Your task to perform on an android device: Go to ESPN.com Image 0: 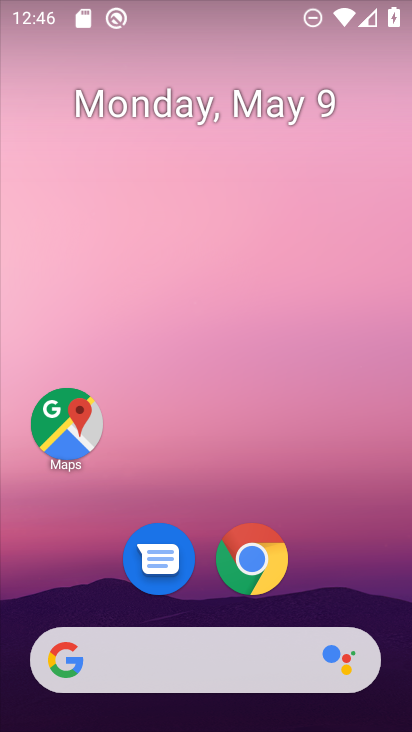
Step 0: drag from (369, 602) to (363, 537)
Your task to perform on an android device: Go to ESPN.com Image 1: 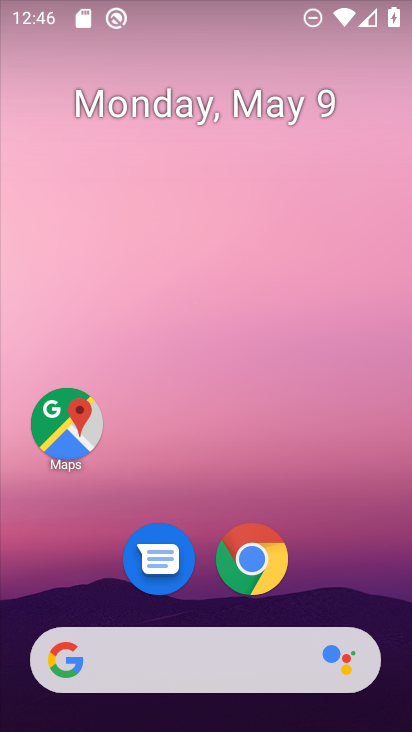
Step 1: drag from (397, 221) to (366, 117)
Your task to perform on an android device: Go to ESPN.com Image 2: 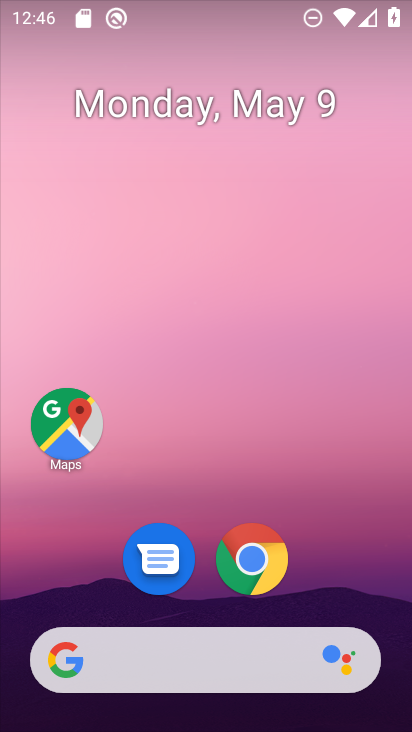
Step 2: click (237, 555)
Your task to perform on an android device: Go to ESPN.com Image 3: 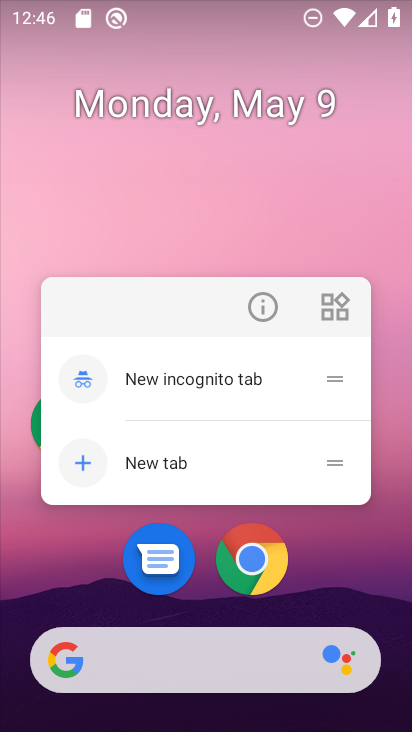
Step 3: click (246, 550)
Your task to perform on an android device: Go to ESPN.com Image 4: 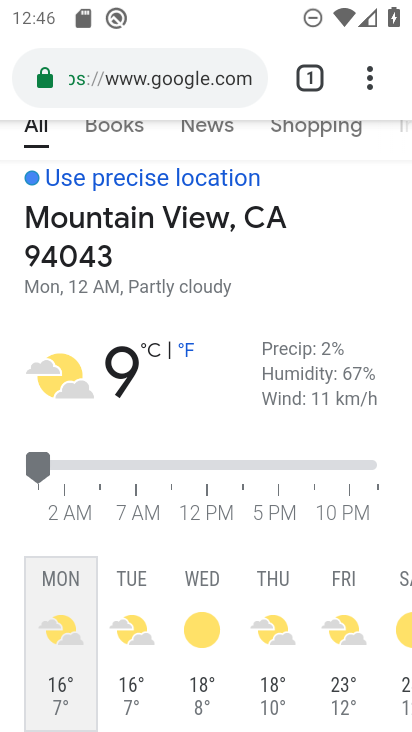
Step 4: drag from (375, 75) to (283, 164)
Your task to perform on an android device: Go to ESPN.com Image 5: 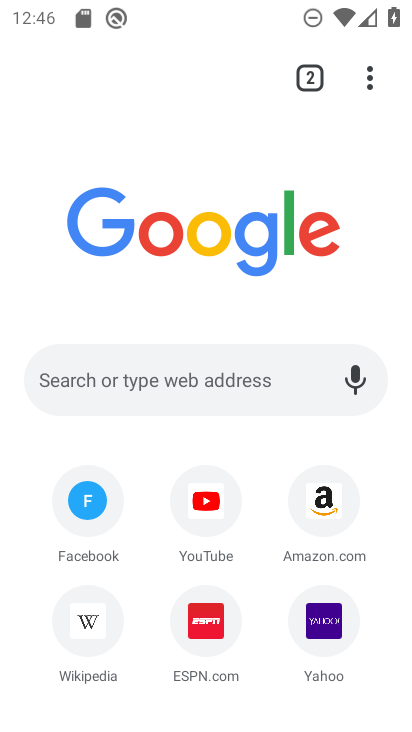
Step 5: click (223, 620)
Your task to perform on an android device: Go to ESPN.com Image 6: 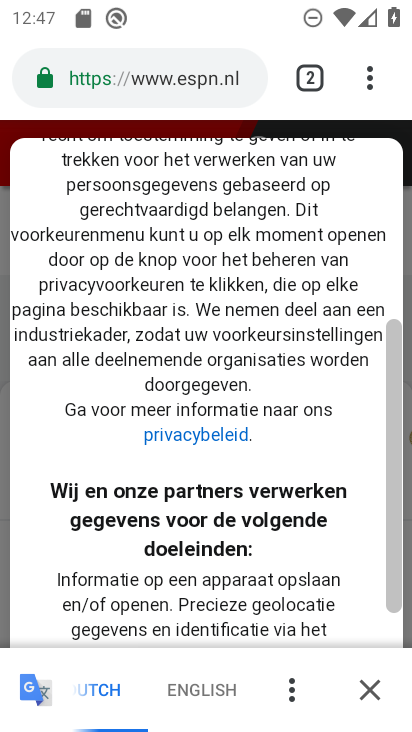
Step 6: task complete